Your task to perform on an android device: Open Chrome and go to settings Image 0: 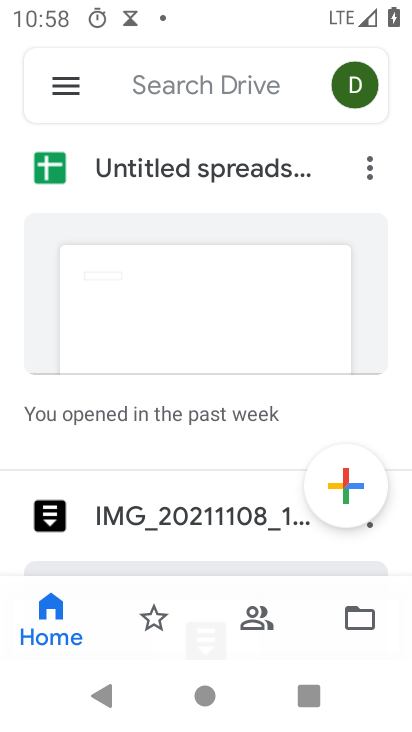
Step 0: press home button
Your task to perform on an android device: Open Chrome and go to settings Image 1: 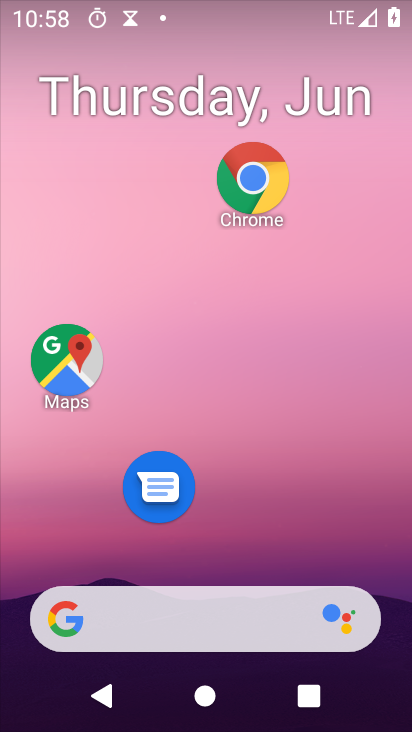
Step 1: click (255, 185)
Your task to perform on an android device: Open Chrome and go to settings Image 2: 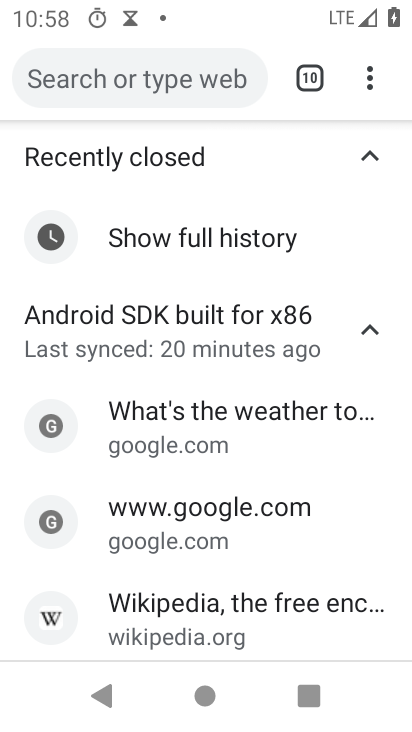
Step 2: click (369, 90)
Your task to perform on an android device: Open Chrome and go to settings Image 3: 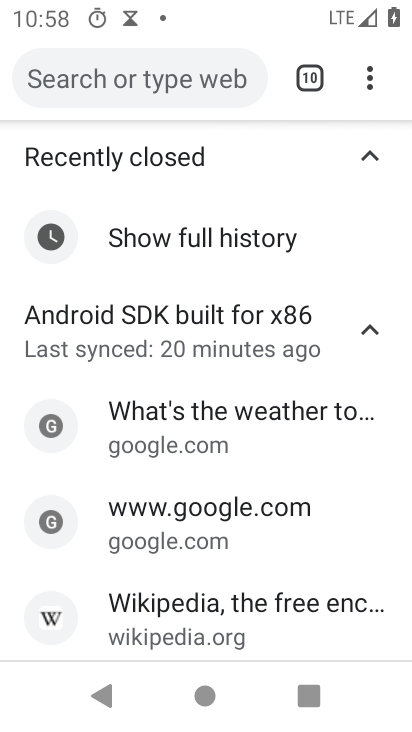
Step 3: click (373, 84)
Your task to perform on an android device: Open Chrome and go to settings Image 4: 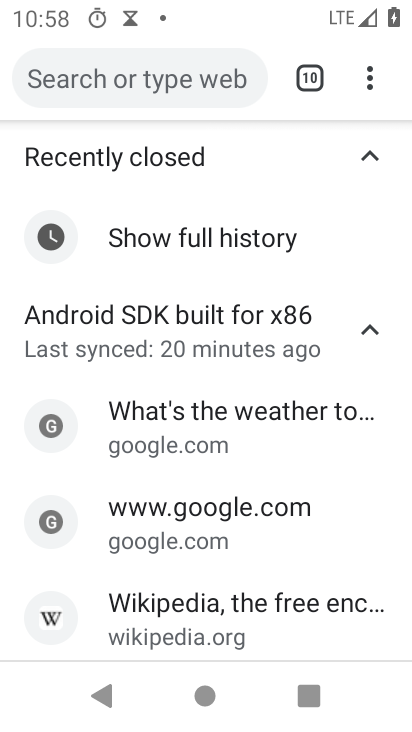
Step 4: click (369, 86)
Your task to perform on an android device: Open Chrome and go to settings Image 5: 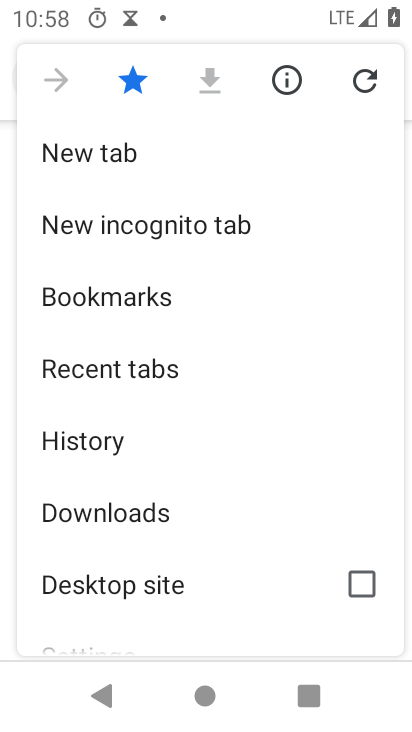
Step 5: drag from (141, 622) to (153, 195)
Your task to perform on an android device: Open Chrome and go to settings Image 6: 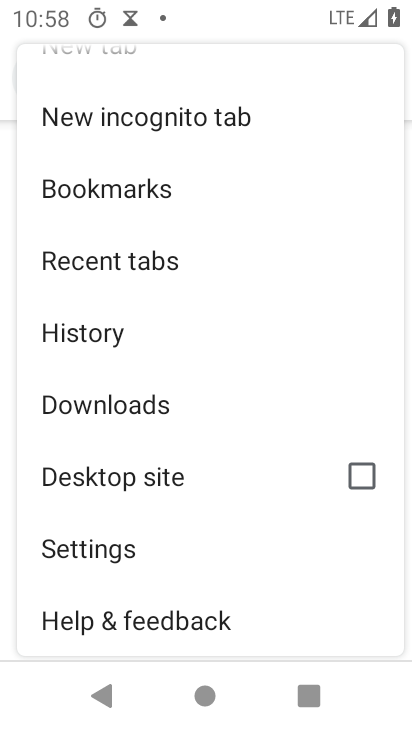
Step 6: click (83, 542)
Your task to perform on an android device: Open Chrome and go to settings Image 7: 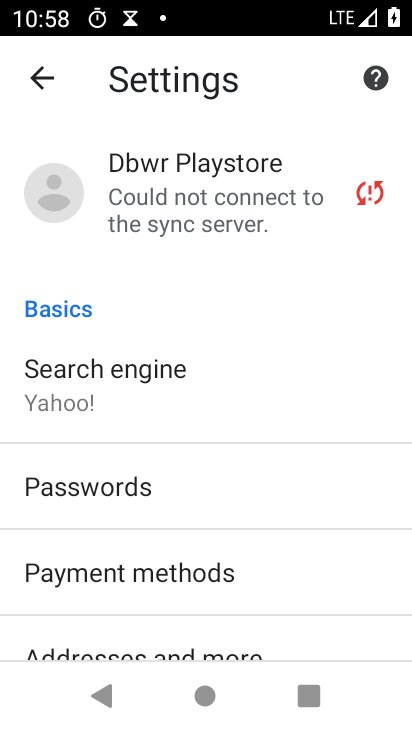
Step 7: task complete